Your task to perform on an android device: Go to eBay Image 0: 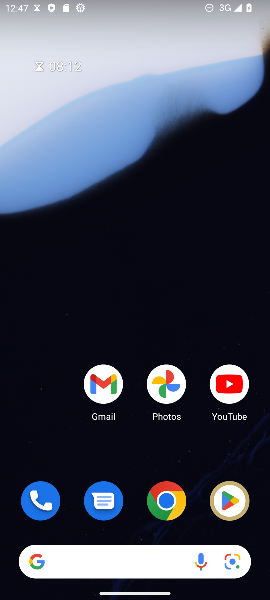
Step 0: click (165, 492)
Your task to perform on an android device: Go to eBay Image 1: 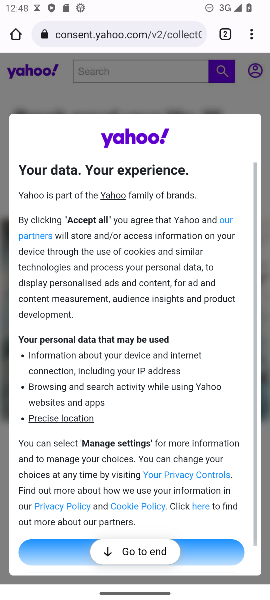
Step 1: click (100, 31)
Your task to perform on an android device: Go to eBay Image 2: 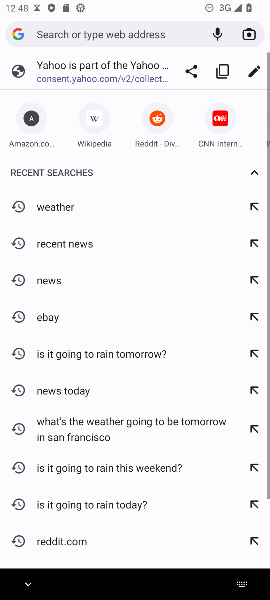
Step 2: click (117, 30)
Your task to perform on an android device: Go to eBay Image 3: 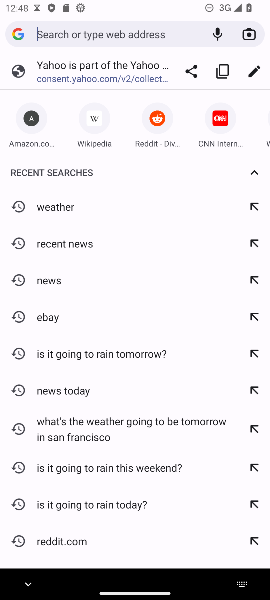
Step 3: click (43, 317)
Your task to perform on an android device: Go to eBay Image 4: 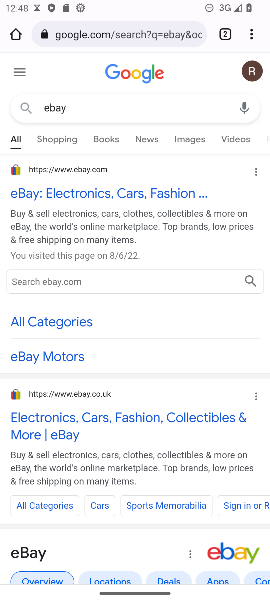
Step 4: task complete